Your task to perform on an android device: Set the phone to "Do not disturb". Image 0: 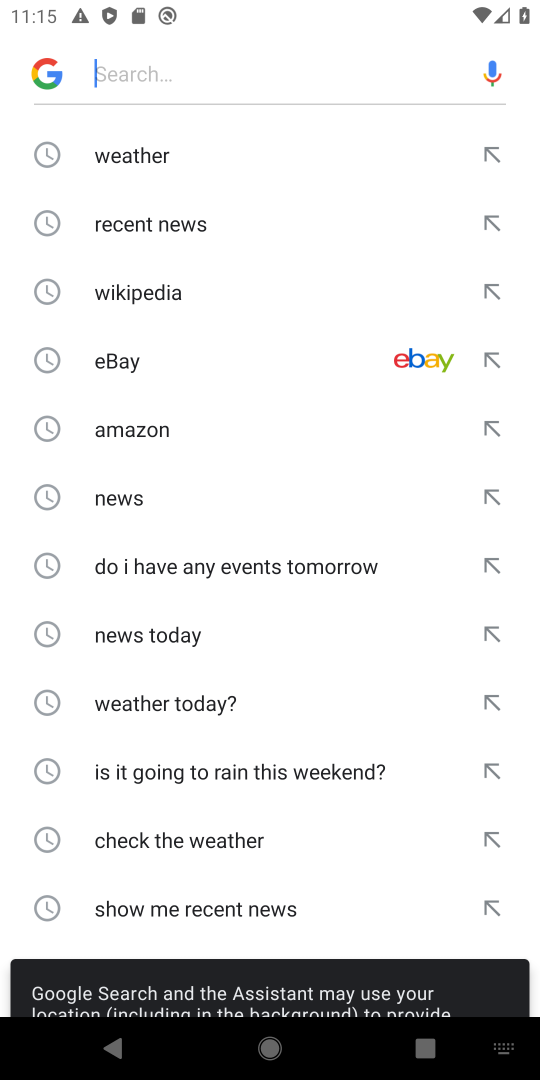
Step 0: press back button
Your task to perform on an android device: Set the phone to "Do not disturb". Image 1: 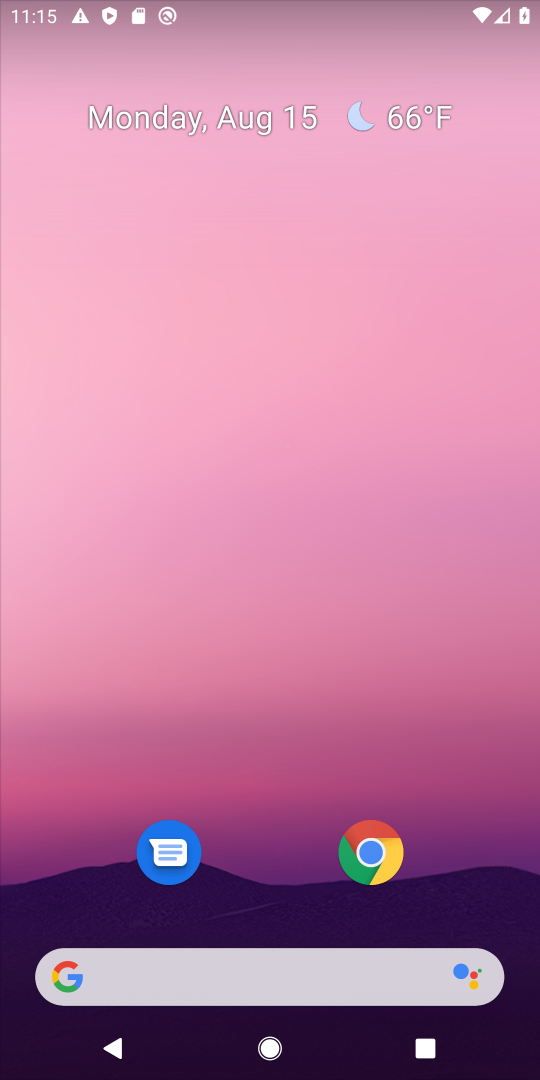
Step 1: drag from (215, 17) to (230, 797)
Your task to perform on an android device: Set the phone to "Do not disturb". Image 2: 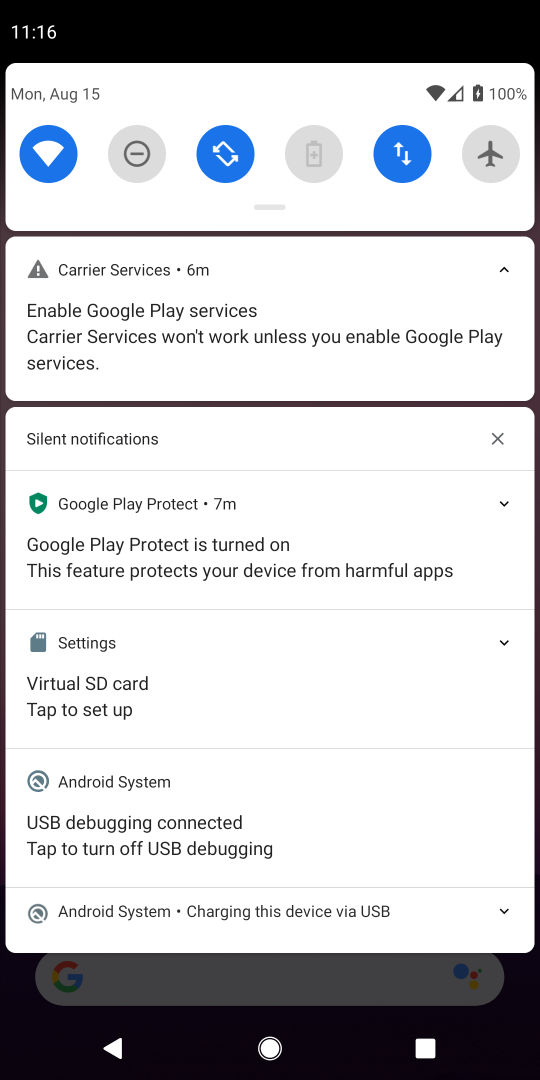
Step 2: click (129, 150)
Your task to perform on an android device: Set the phone to "Do not disturb". Image 3: 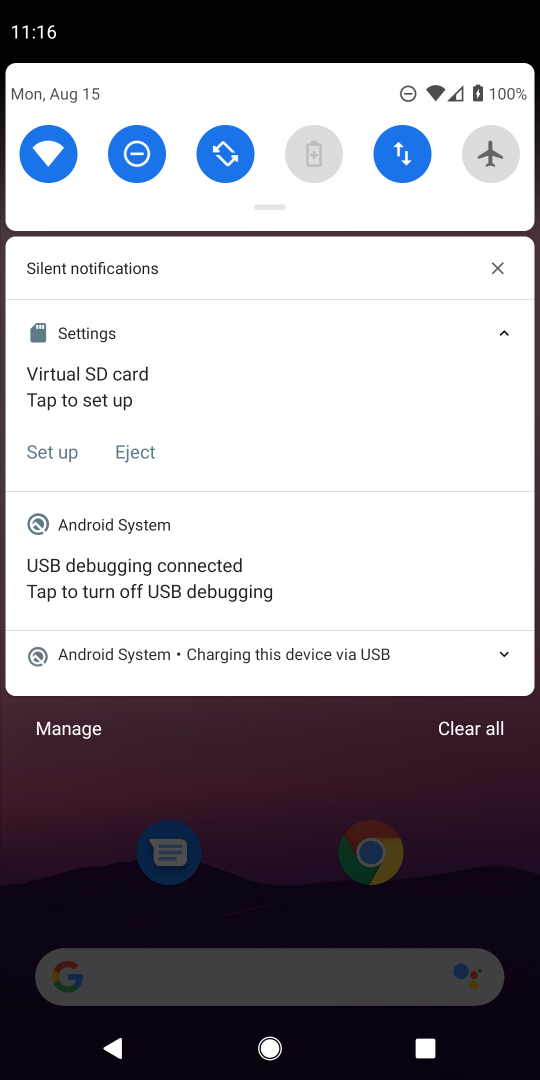
Step 3: task complete